Your task to perform on an android device: Play the latest video from the BBC Image 0: 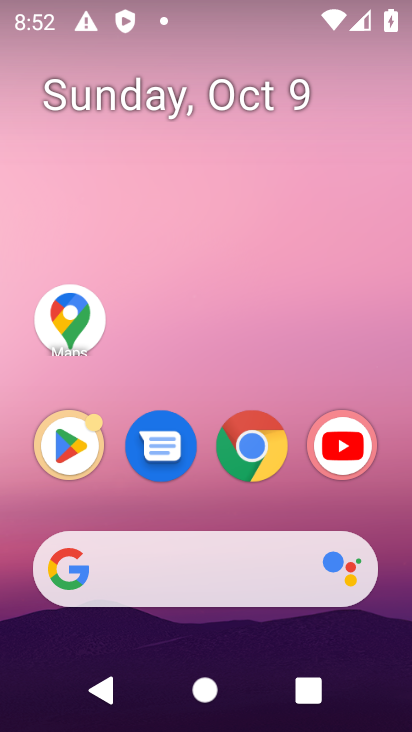
Step 0: click (242, 466)
Your task to perform on an android device: Play the latest video from the BBC Image 1: 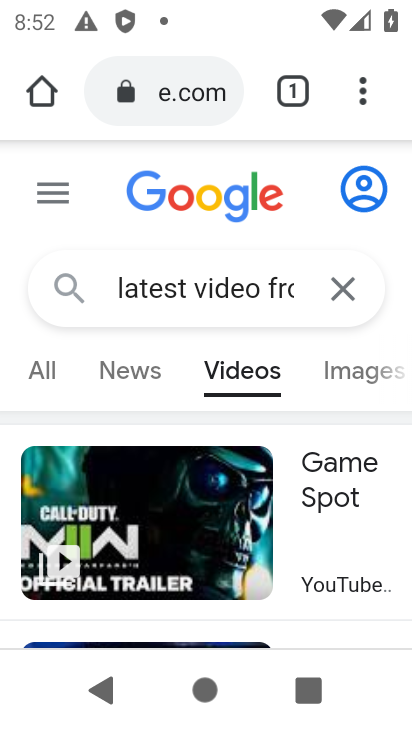
Step 1: click (176, 92)
Your task to perform on an android device: Play the latest video from the BBC Image 2: 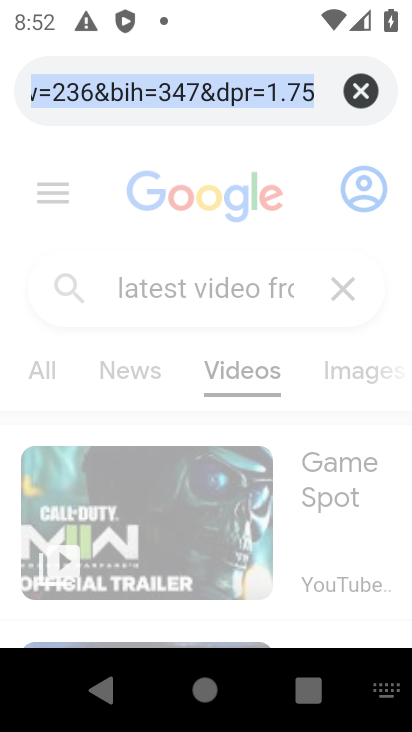
Step 2: type "latest video from the BBC"
Your task to perform on an android device: Play the latest video from the BBC Image 3: 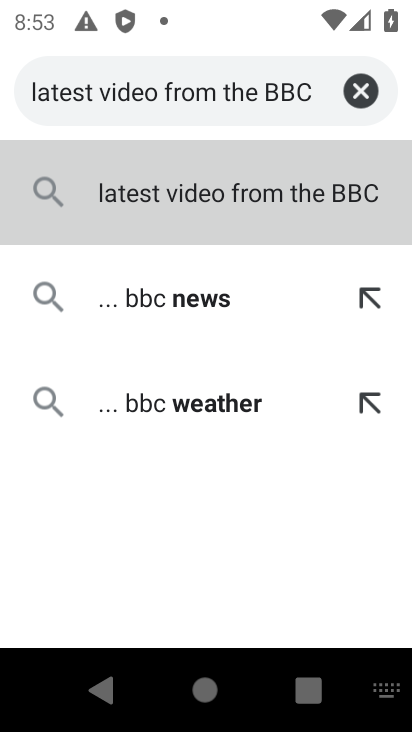
Step 3: press enter
Your task to perform on an android device: Play the latest video from the BBC Image 4: 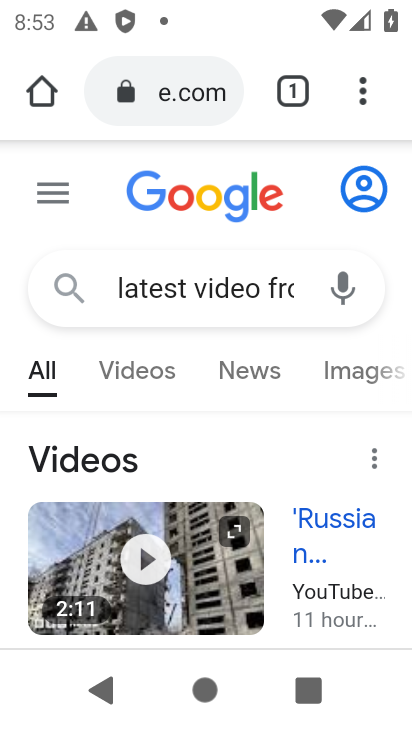
Step 4: click (149, 554)
Your task to perform on an android device: Play the latest video from the BBC Image 5: 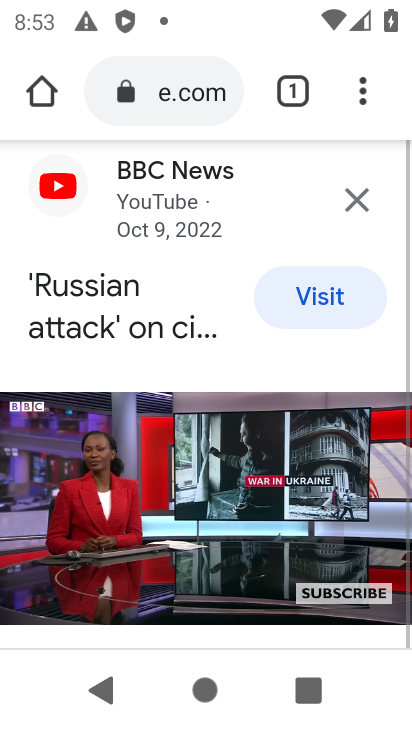
Step 5: task complete